Your task to perform on an android device: turn off airplane mode Image 0: 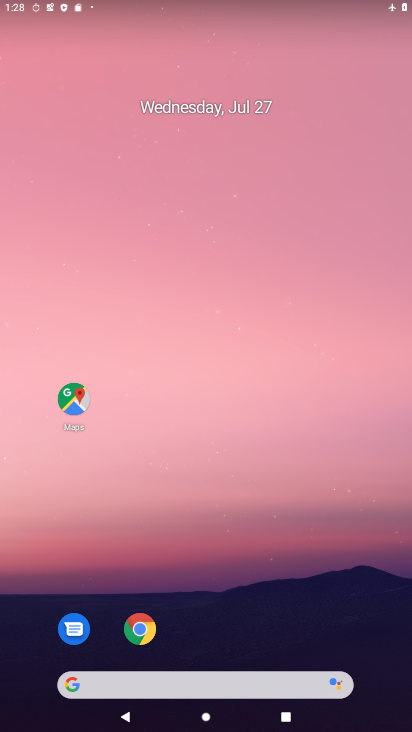
Step 0: click (302, 628)
Your task to perform on an android device: turn off airplane mode Image 1: 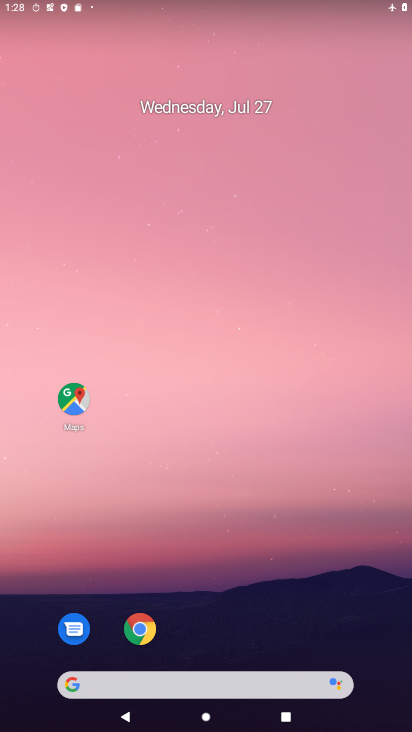
Step 1: drag from (248, 7) to (299, 590)
Your task to perform on an android device: turn off airplane mode Image 2: 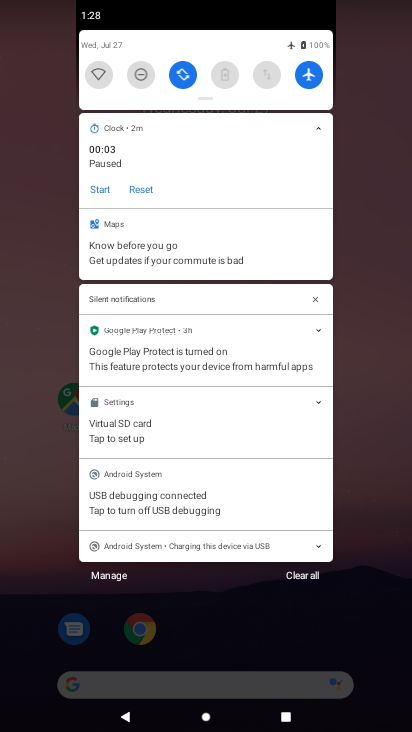
Step 2: click (294, 83)
Your task to perform on an android device: turn off airplane mode Image 3: 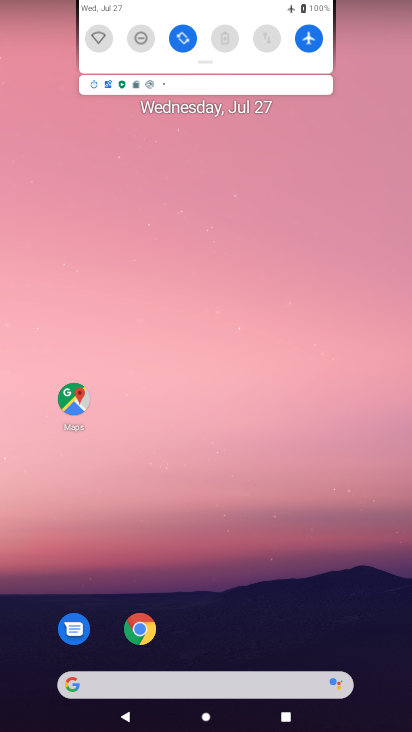
Step 3: click (309, 72)
Your task to perform on an android device: turn off airplane mode Image 4: 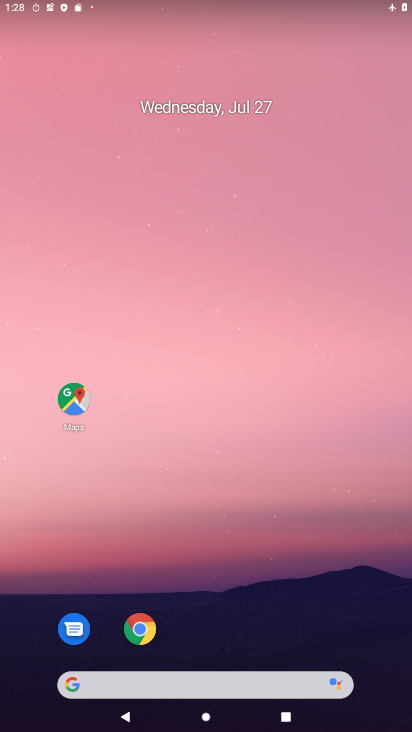
Step 4: drag from (281, 7) to (367, 553)
Your task to perform on an android device: turn off airplane mode Image 5: 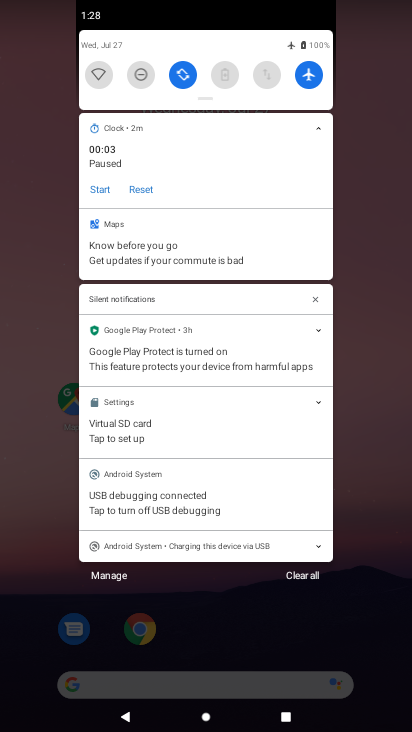
Step 5: click (305, 74)
Your task to perform on an android device: turn off airplane mode Image 6: 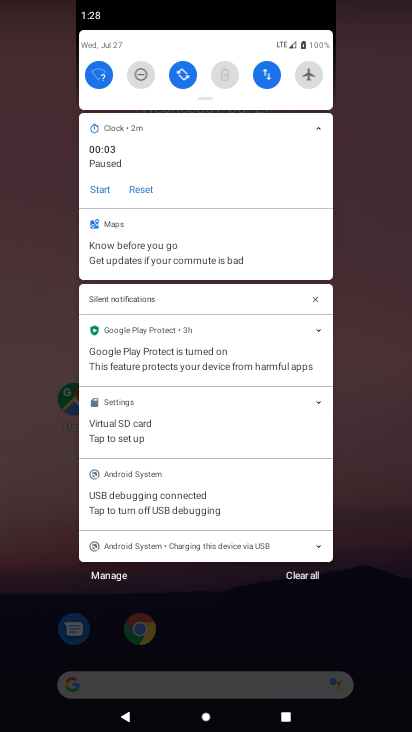
Step 6: task complete